Your task to perform on an android device: toggle priority inbox in the gmail app Image 0: 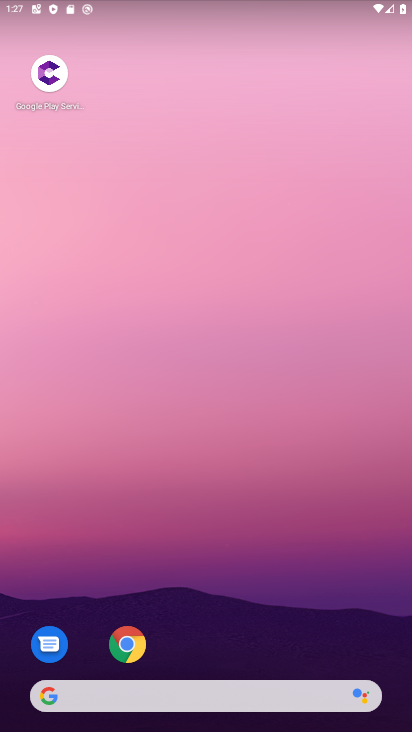
Step 0: drag from (220, 663) to (288, 120)
Your task to perform on an android device: toggle priority inbox in the gmail app Image 1: 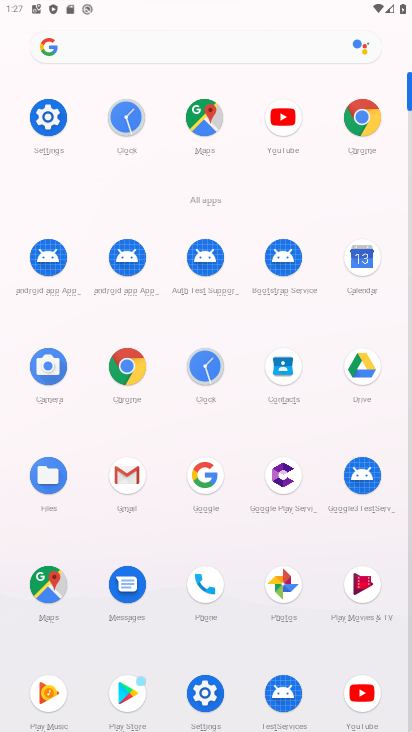
Step 1: click (132, 471)
Your task to perform on an android device: toggle priority inbox in the gmail app Image 2: 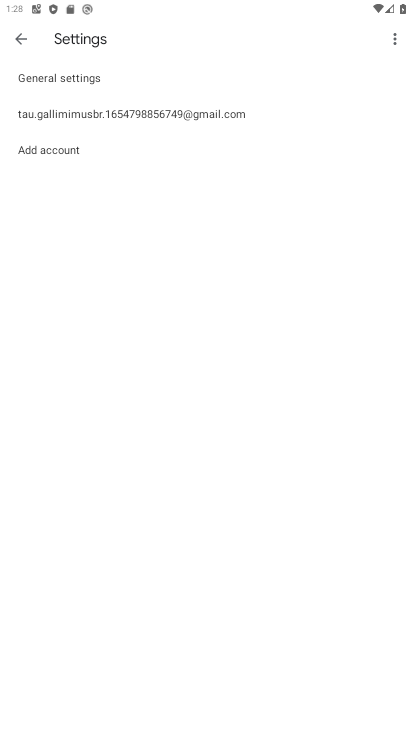
Step 2: click (52, 113)
Your task to perform on an android device: toggle priority inbox in the gmail app Image 3: 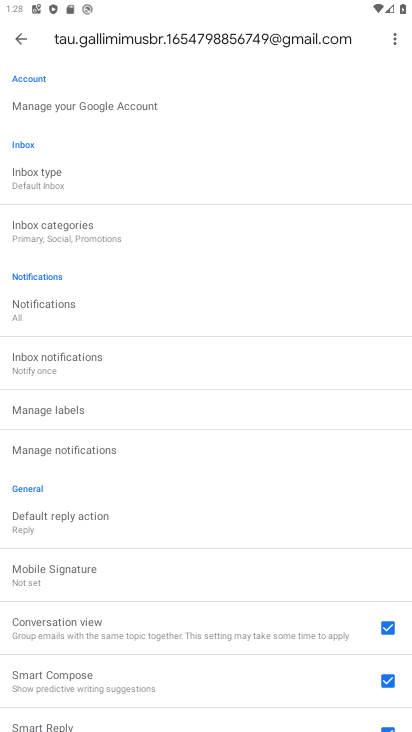
Step 3: click (50, 174)
Your task to perform on an android device: toggle priority inbox in the gmail app Image 4: 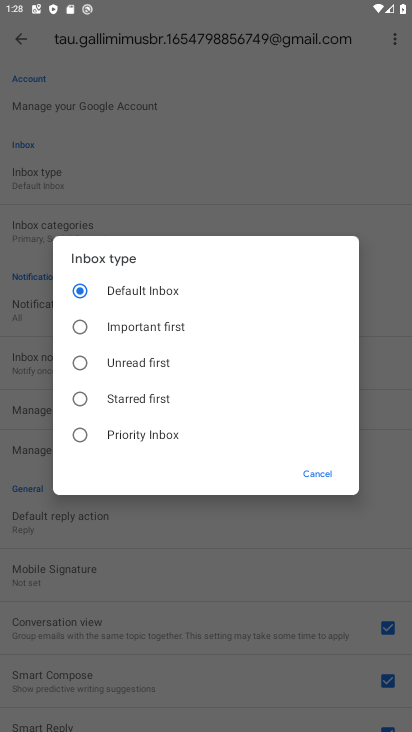
Step 4: click (81, 443)
Your task to perform on an android device: toggle priority inbox in the gmail app Image 5: 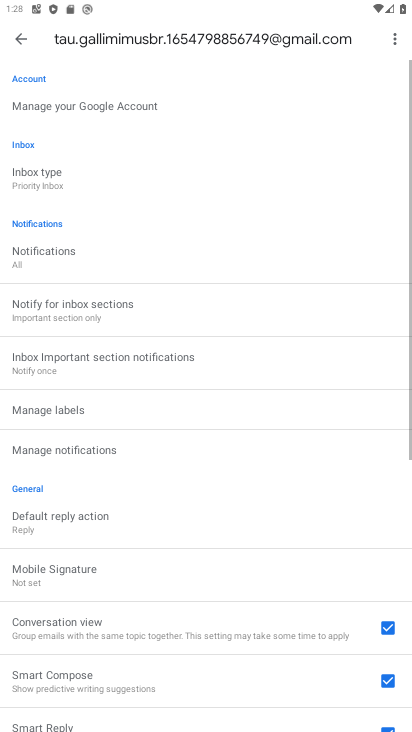
Step 5: task complete